Your task to perform on an android device: open device folders in google photos Image 0: 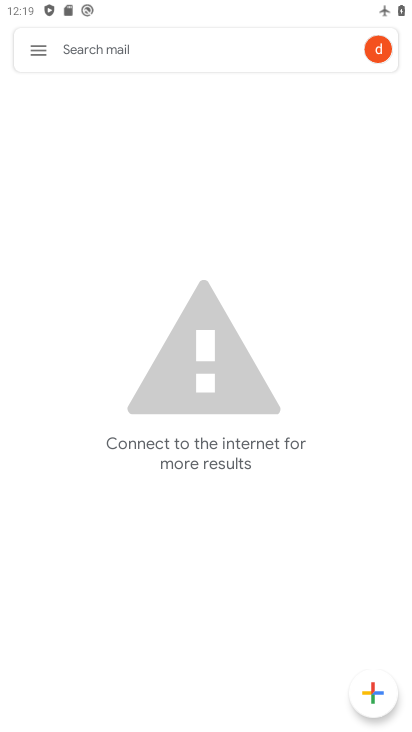
Step 0: press home button
Your task to perform on an android device: open device folders in google photos Image 1: 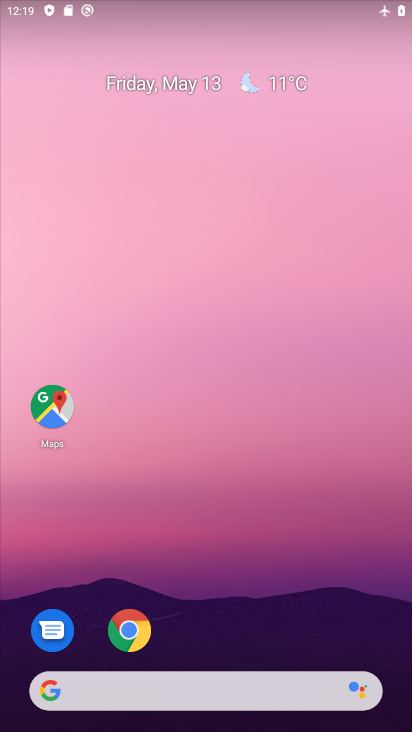
Step 1: drag from (334, 639) to (320, 37)
Your task to perform on an android device: open device folders in google photos Image 2: 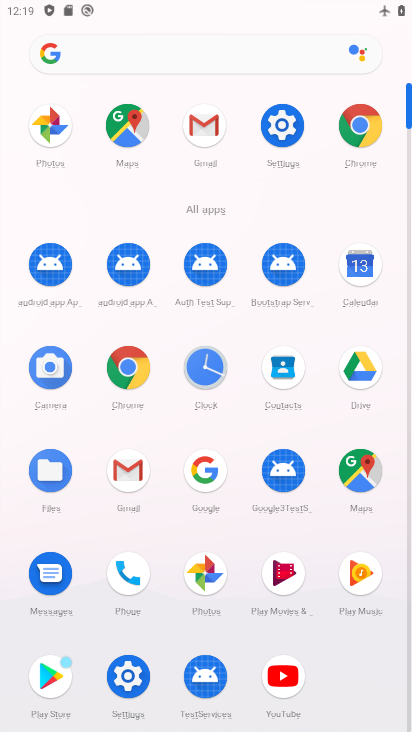
Step 2: click (49, 132)
Your task to perform on an android device: open device folders in google photos Image 3: 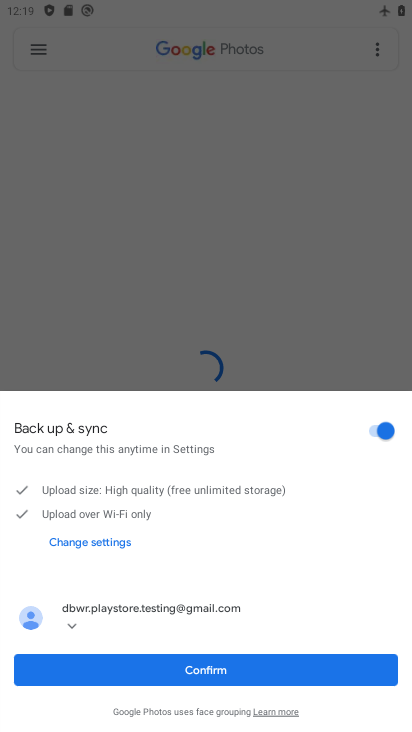
Step 3: click (170, 679)
Your task to perform on an android device: open device folders in google photos Image 4: 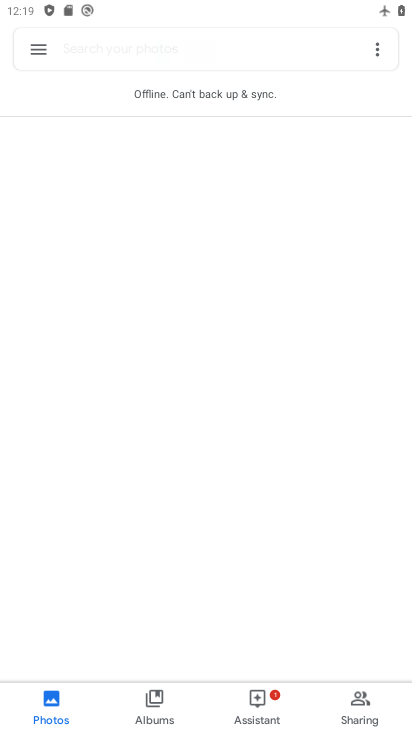
Step 4: click (45, 52)
Your task to perform on an android device: open device folders in google photos Image 5: 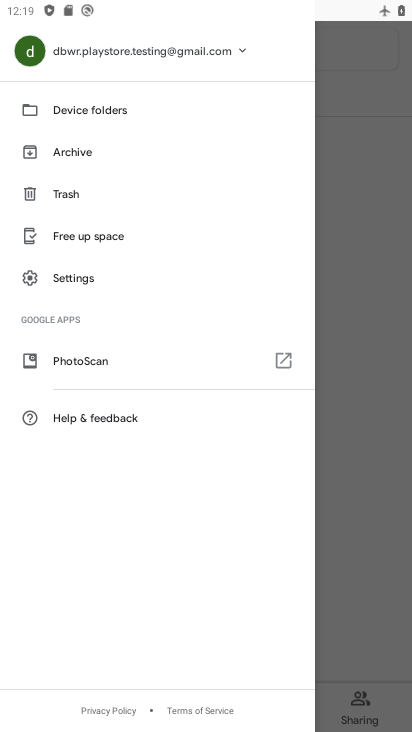
Step 5: click (79, 112)
Your task to perform on an android device: open device folders in google photos Image 6: 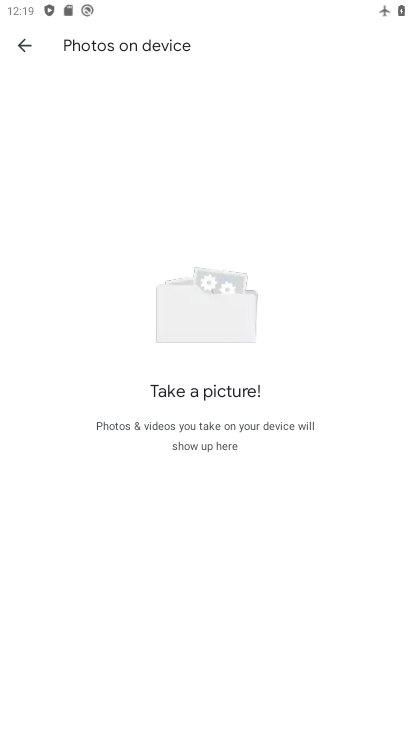
Step 6: task complete